Your task to perform on an android device: allow notifications from all sites in the chrome app Image 0: 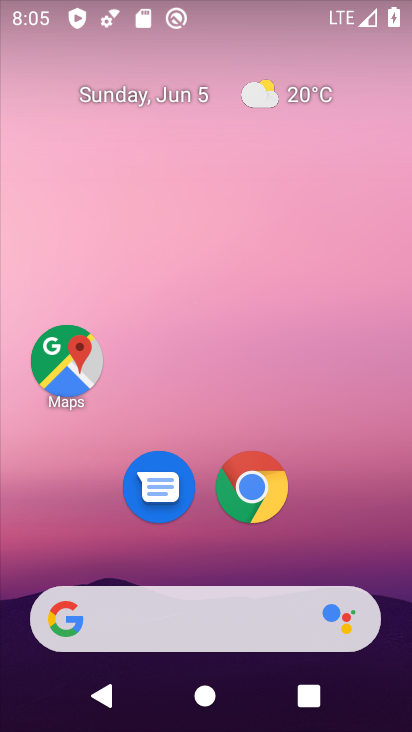
Step 0: click (260, 468)
Your task to perform on an android device: allow notifications from all sites in the chrome app Image 1: 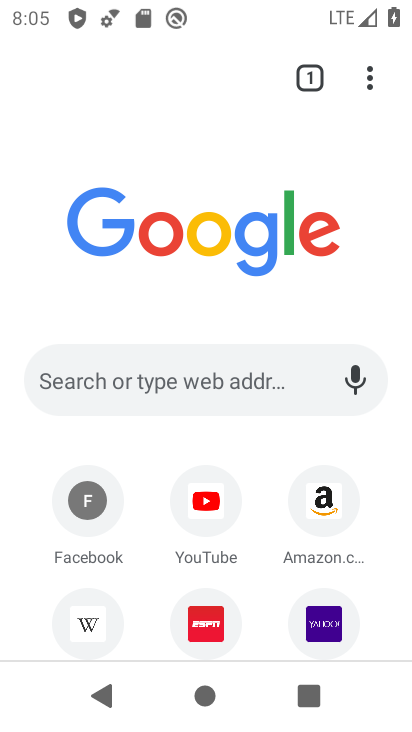
Step 1: drag from (375, 76) to (124, 552)
Your task to perform on an android device: allow notifications from all sites in the chrome app Image 2: 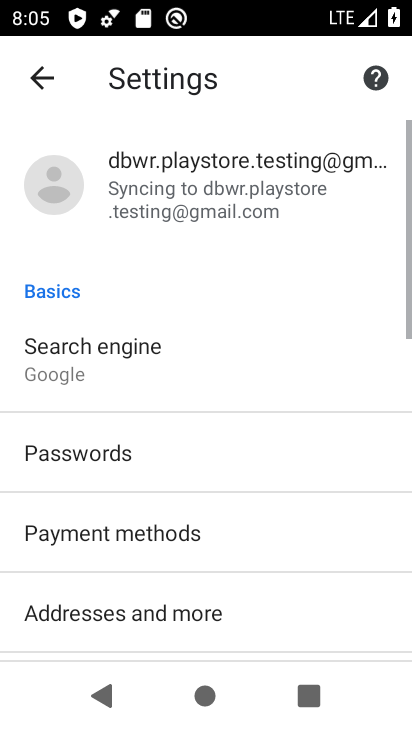
Step 2: drag from (200, 601) to (228, 113)
Your task to perform on an android device: allow notifications from all sites in the chrome app Image 3: 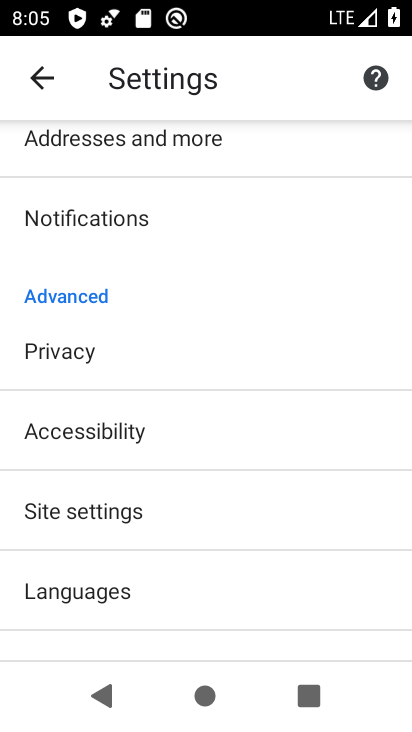
Step 3: click (115, 518)
Your task to perform on an android device: allow notifications from all sites in the chrome app Image 4: 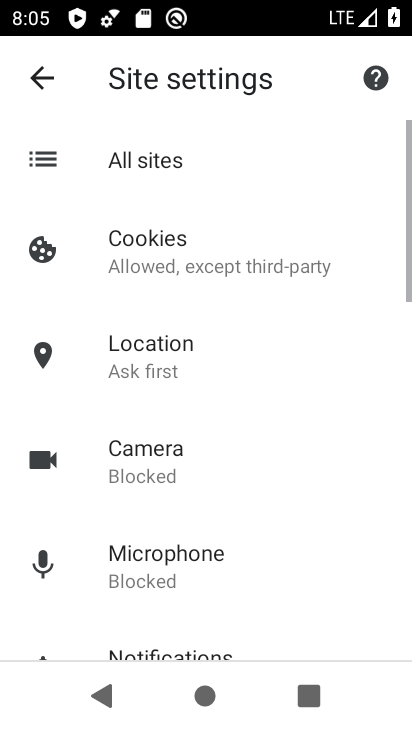
Step 4: click (162, 170)
Your task to perform on an android device: allow notifications from all sites in the chrome app Image 5: 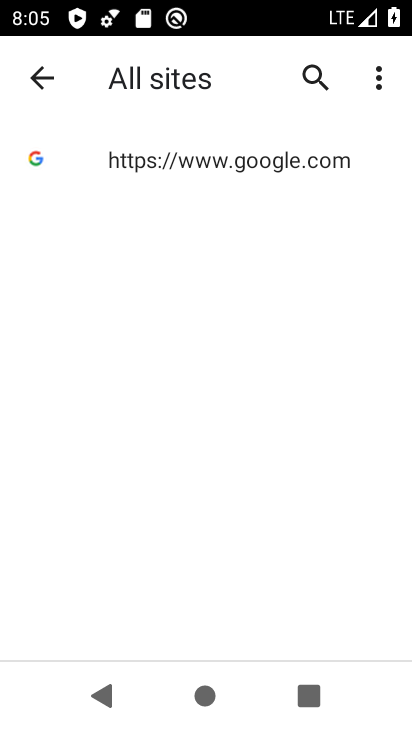
Step 5: click (241, 168)
Your task to perform on an android device: allow notifications from all sites in the chrome app Image 6: 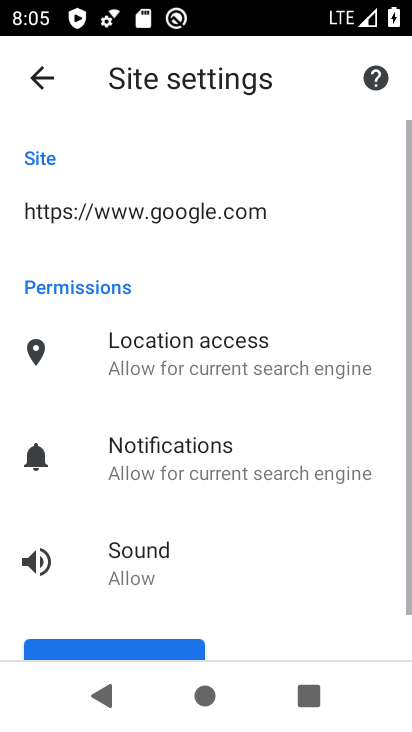
Step 6: click (197, 456)
Your task to perform on an android device: allow notifications from all sites in the chrome app Image 7: 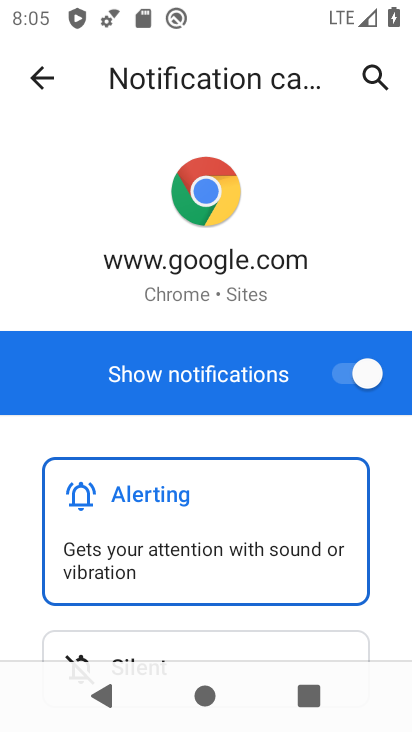
Step 7: task complete